Your task to perform on an android device: move an email to a new category in the gmail app Image 0: 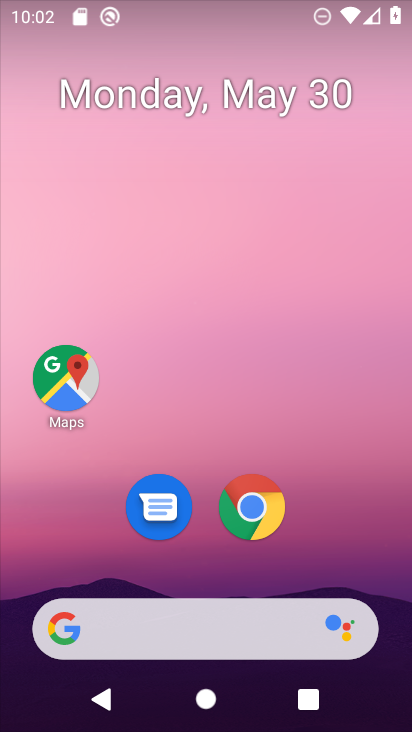
Step 0: drag from (152, 716) to (210, 150)
Your task to perform on an android device: move an email to a new category in the gmail app Image 1: 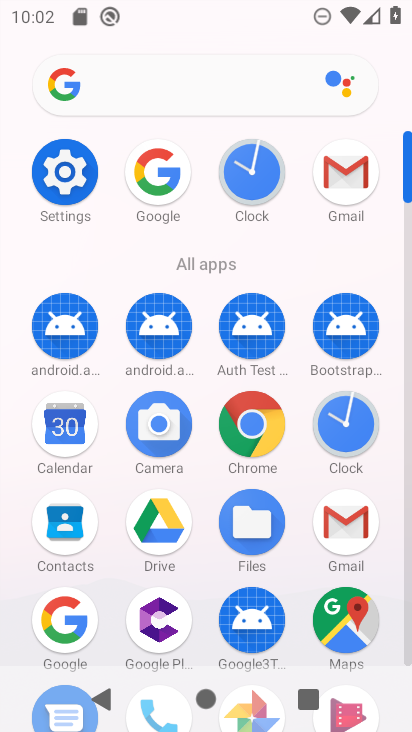
Step 1: click (367, 181)
Your task to perform on an android device: move an email to a new category in the gmail app Image 2: 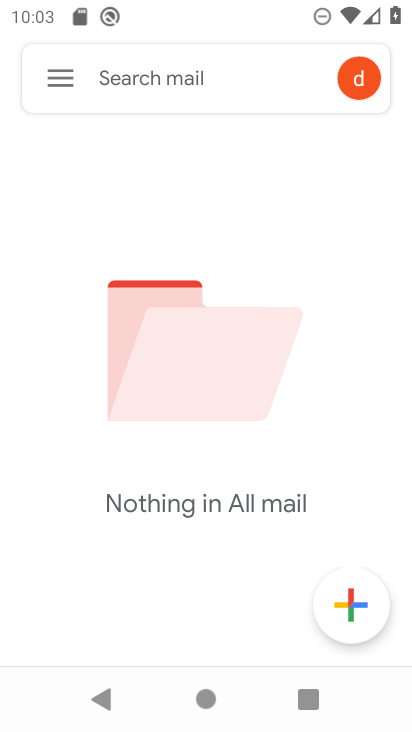
Step 2: click (73, 74)
Your task to perform on an android device: move an email to a new category in the gmail app Image 3: 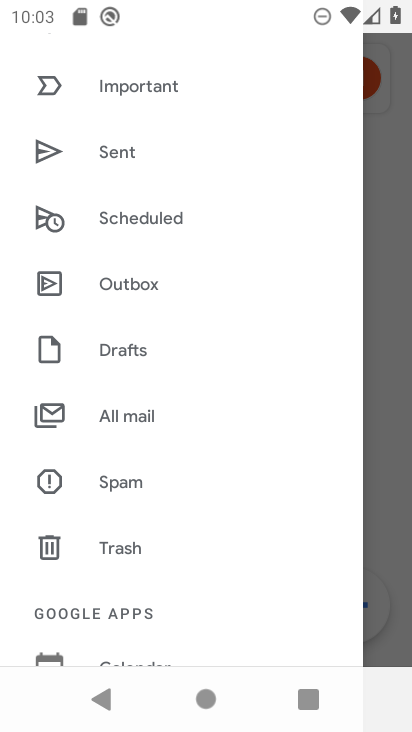
Step 3: click (140, 420)
Your task to perform on an android device: move an email to a new category in the gmail app Image 4: 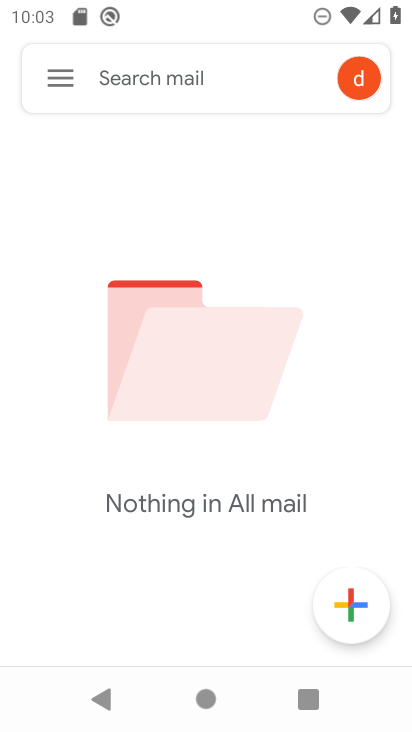
Step 4: click (56, 84)
Your task to perform on an android device: move an email to a new category in the gmail app Image 5: 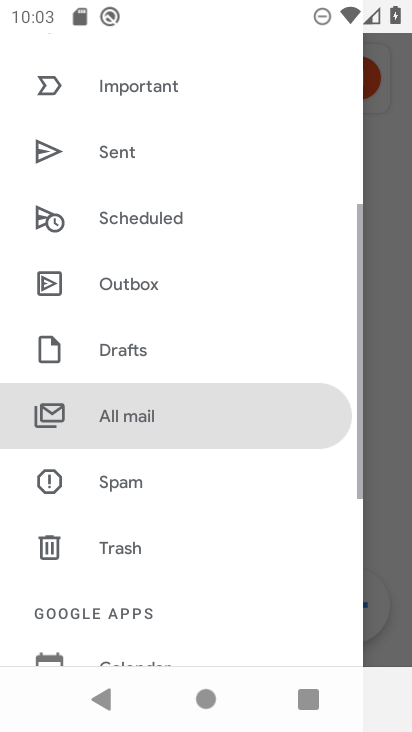
Step 5: drag from (193, 178) to (164, 561)
Your task to perform on an android device: move an email to a new category in the gmail app Image 6: 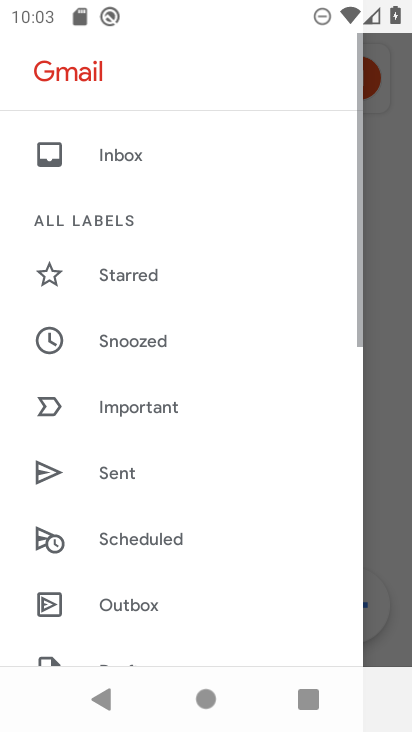
Step 6: click (132, 148)
Your task to perform on an android device: move an email to a new category in the gmail app Image 7: 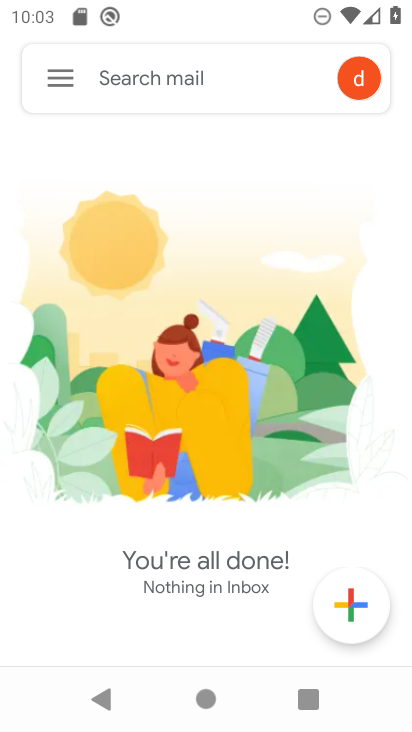
Step 7: task complete